Your task to perform on an android device: Open calendar and show me the fourth week of next month Image 0: 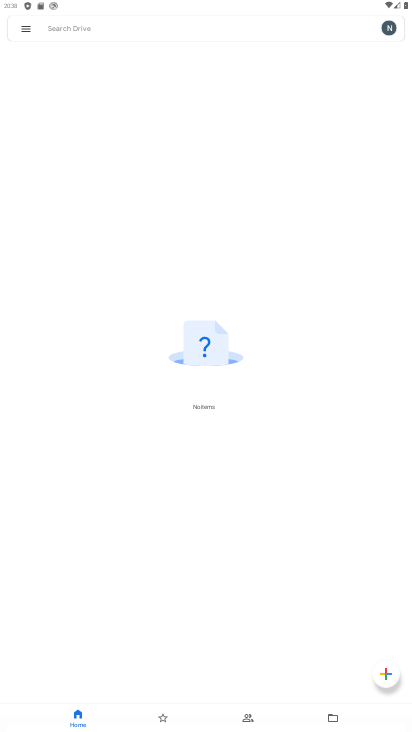
Step 0: press home button
Your task to perform on an android device: Open calendar and show me the fourth week of next month Image 1: 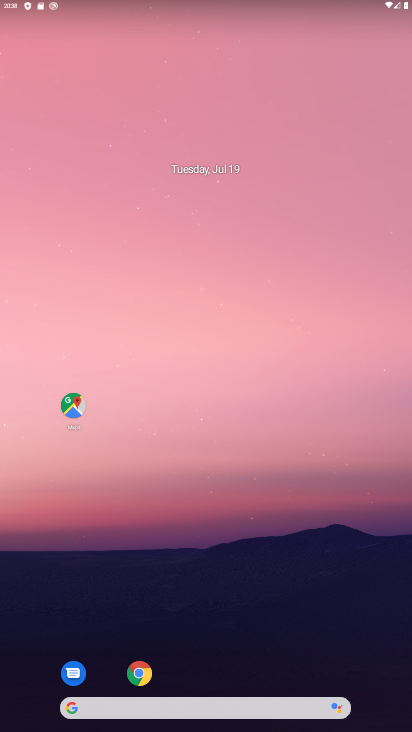
Step 1: drag from (193, 653) to (341, 2)
Your task to perform on an android device: Open calendar and show me the fourth week of next month Image 2: 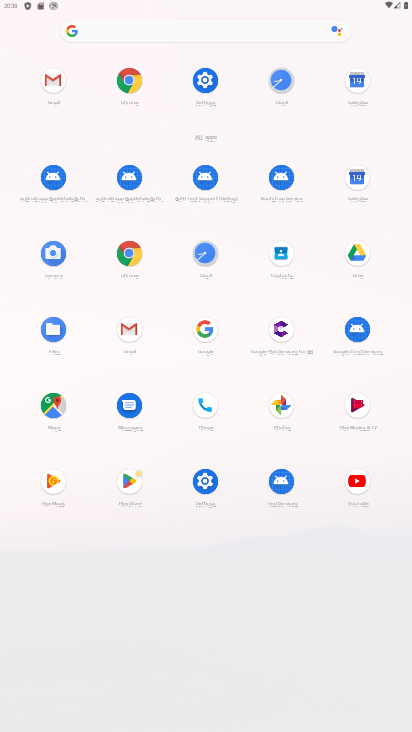
Step 2: click (364, 189)
Your task to perform on an android device: Open calendar and show me the fourth week of next month Image 3: 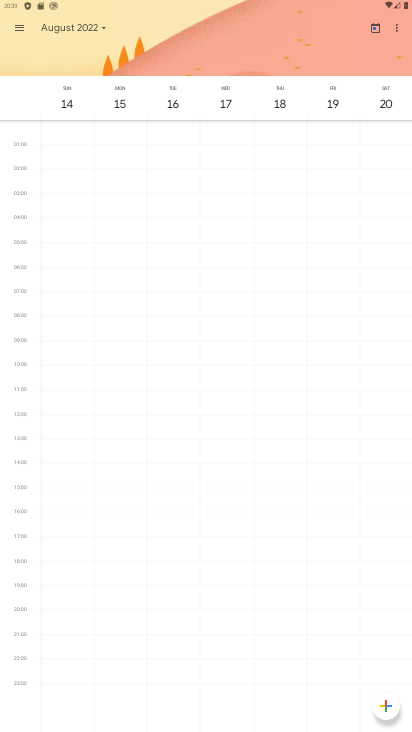
Step 3: task complete